Your task to perform on an android device: allow notifications from all sites in the chrome app Image 0: 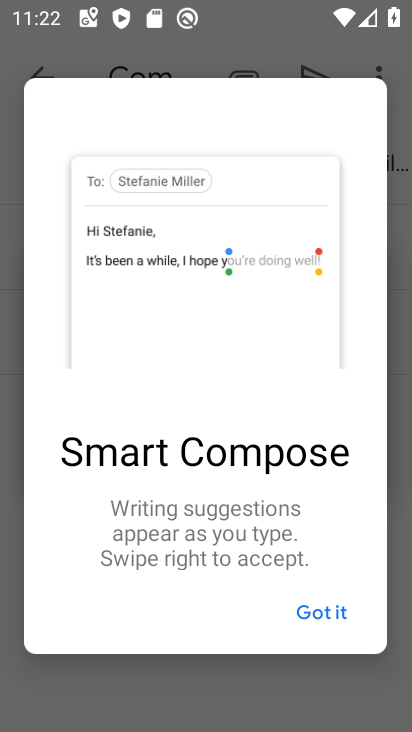
Step 0: press home button
Your task to perform on an android device: allow notifications from all sites in the chrome app Image 1: 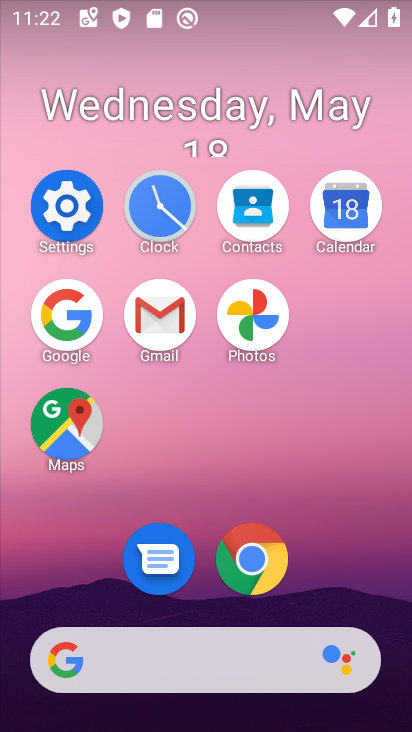
Step 1: click (259, 556)
Your task to perform on an android device: allow notifications from all sites in the chrome app Image 2: 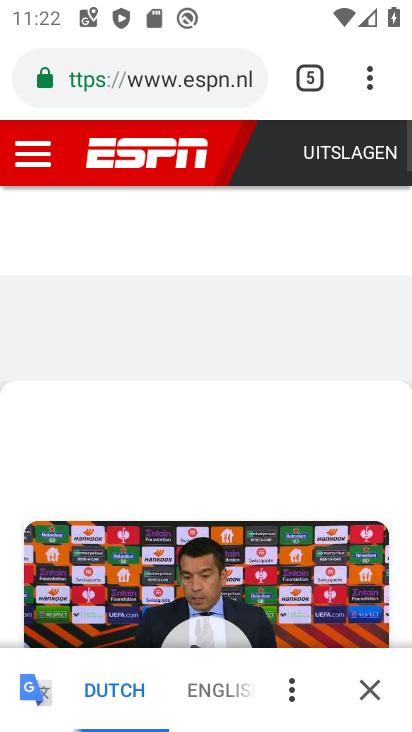
Step 2: click (366, 82)
Your task to perform on an android device: allow notifications from all sites in the chrome app Image 3: 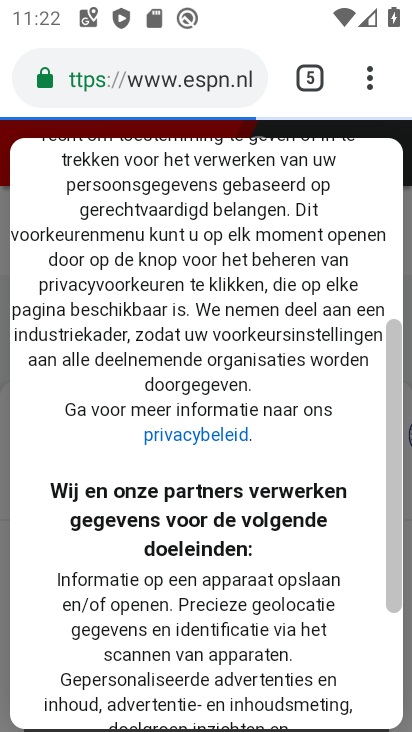
Step 3: click (370, 78)
Your task to perform on an android device: allow notifications from all sites in the chrome app Image 4: 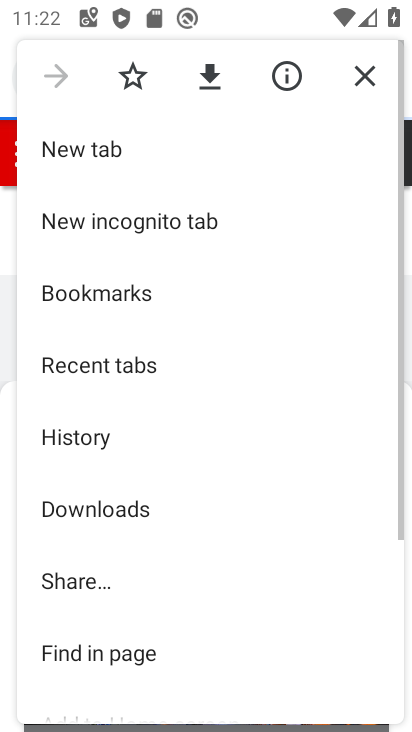
Step 4: drag from (143, 522) to (213, 245)
Your task to perform on an android device: allow notifications from all sites in the chrome app Image 5: 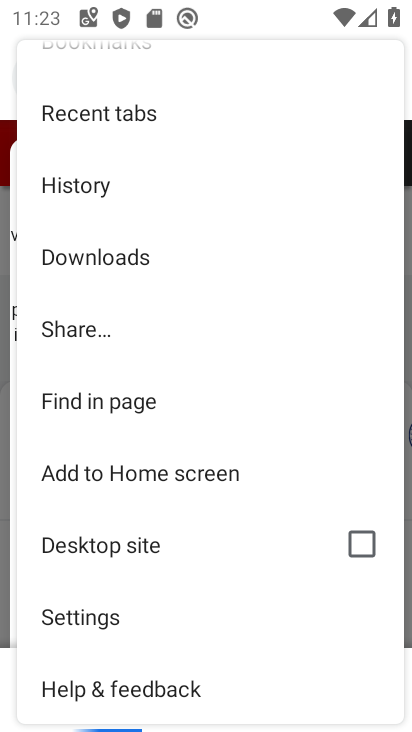
Step 5: click (163, 612)
Your task to perform on an android device: allow notifications from all sites in the chrome app Image 6: 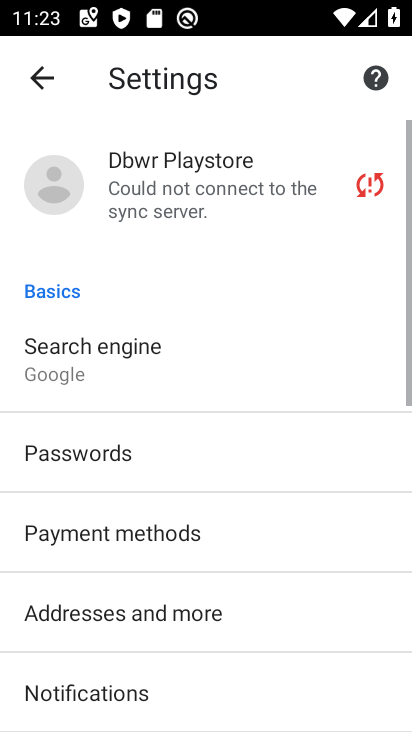
Step 6: drag from (167, 580) to (210, 203)
Your task to perform on an android device: allow notifications from all sites in the chrome app Image 7: 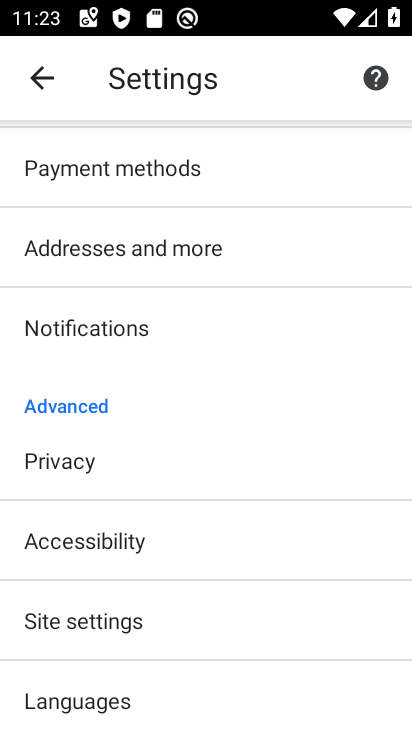
Step 7: click (201, 335)
Your task to perform on an android device: allow notifications from all sites in the chrome app Image 8: 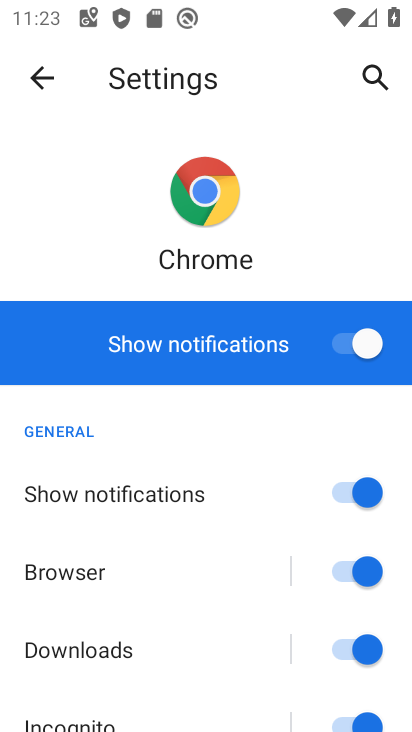
Step 8: task complete